Your task to perform on an android device: choose inbox layout in the gmail app Image 0: 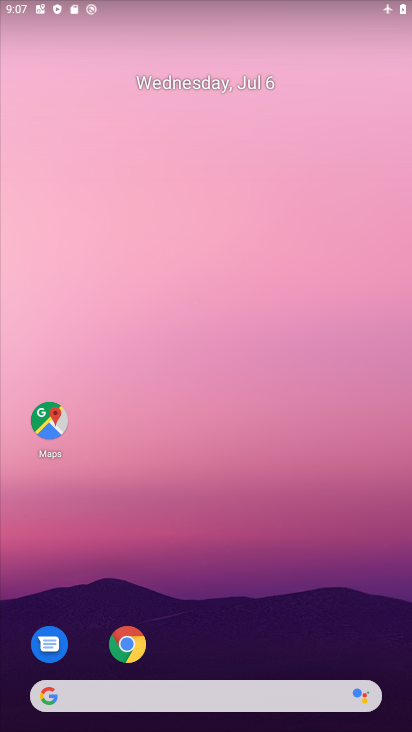
Step 0: drag from (230, 647) to (188, 56)
Your task to perform on an android device: choose inbox layout in the gmail app Image 1: 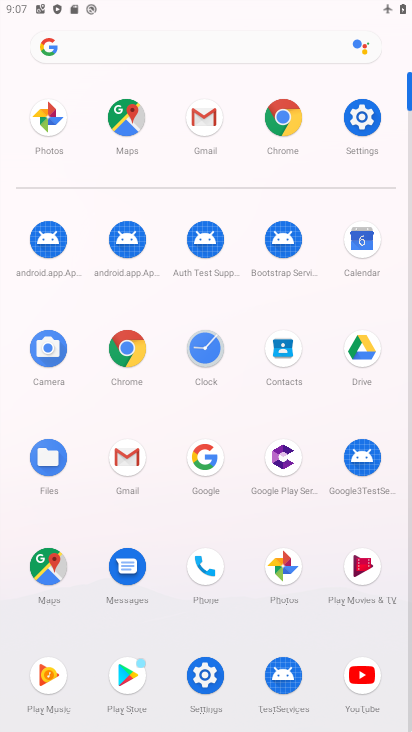
Step 1: click (211, 143)
Your task to perform on an android device: choose inbox layout in the gmail app Image 2: 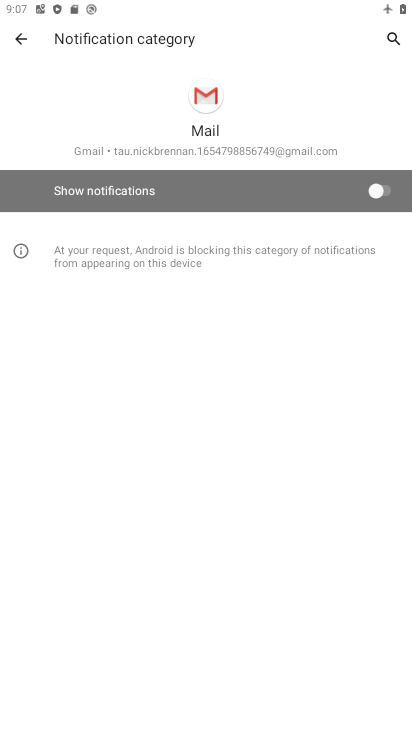
Step 2: click (12, 47)
Your task to perform on an android device: choose inbox layout in the gmail app Image 3: 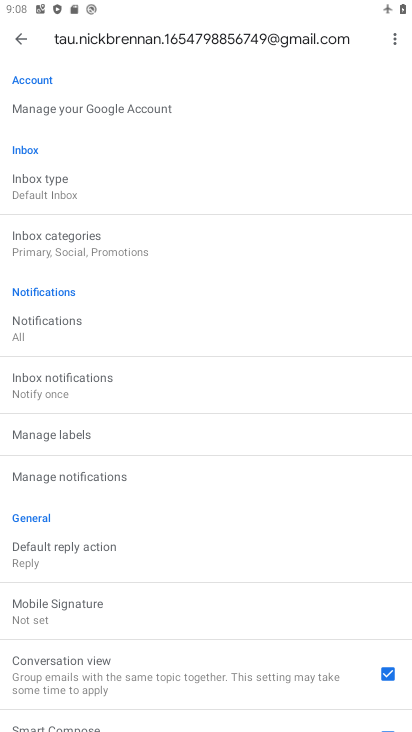
Step 3: click (106, 193)
Your task to perform on an android device: choose inbox layout in the gmail app Image 4: 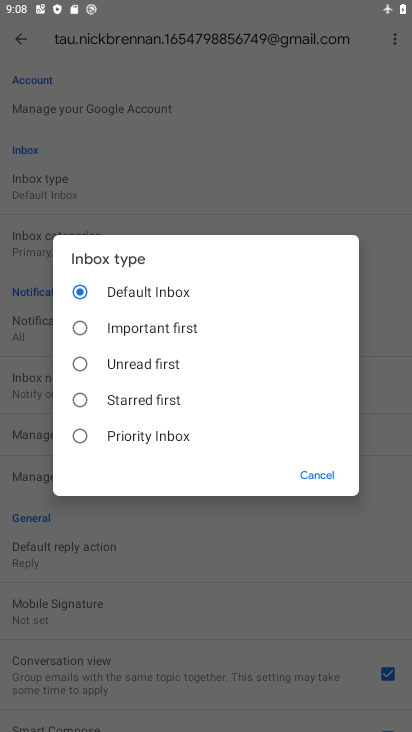
Step 4: click (130, 430)
Your task to perform on an android device: choose inbox layout in the gmail app Image 5: 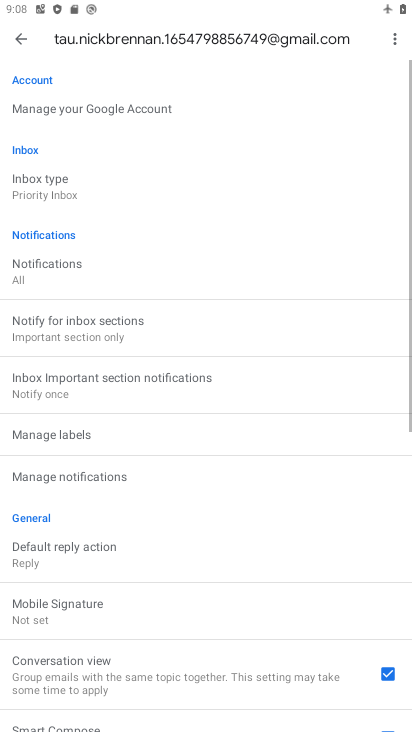
Step 5: task complete